Your task to perform on an android device: Open the calendar and show me this week's events? Image 0: 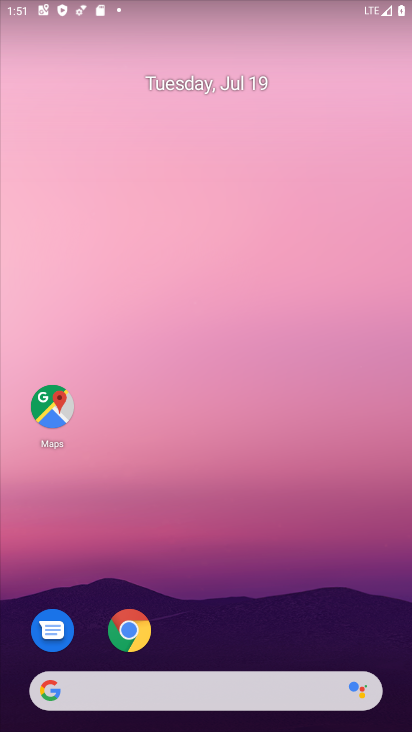
Step 0: drag from (222, 247) to (245, 128)
Your task to perform on an android device: Open the calendar and show me this week's events? Image 1: 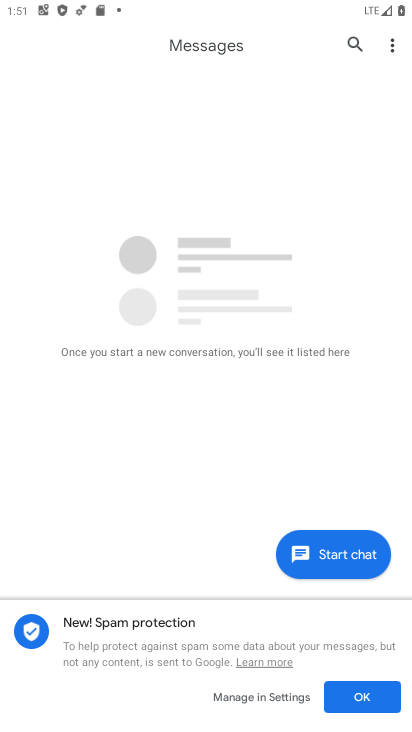
Step 1: press home button
Your task to perform on an android device: Open the calendar and show me this week's events? Image 2: 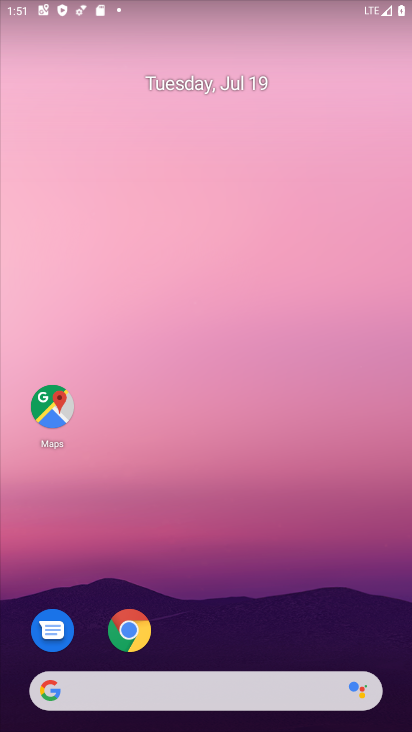
Step 2: drag from (219, 650) to (205, 81)
Your task to perform on an android device: Open the calendar and show me this week's events? Image 3: 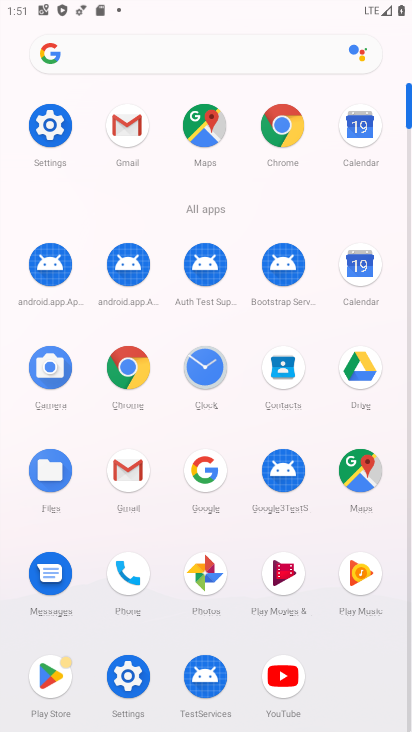
Step 3: click (361, 265)
Your task to perform on an android device: Open the calendar and show me this week's events? Image 4: 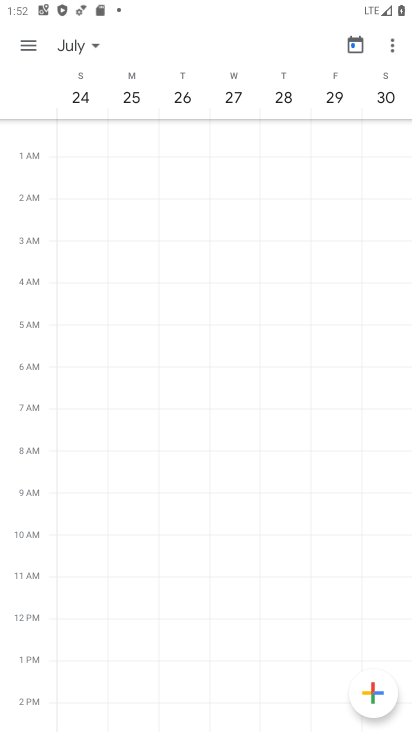
Step 4: task complete